Your task to perform on an android device: Go to settings Image 0: 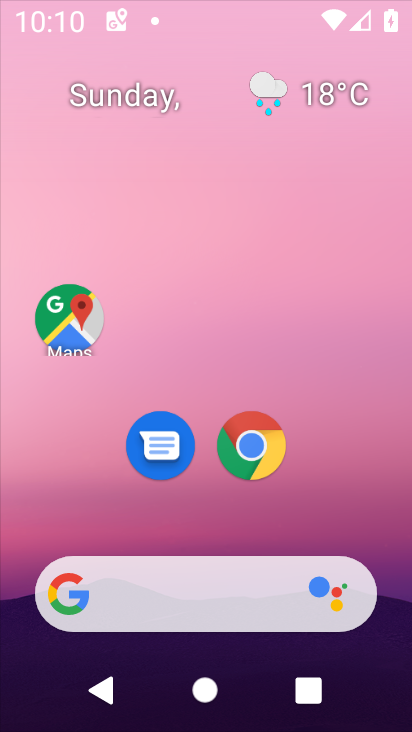
Step 0: press home button
Your task to perform on an android device: Go to settings Image 1: 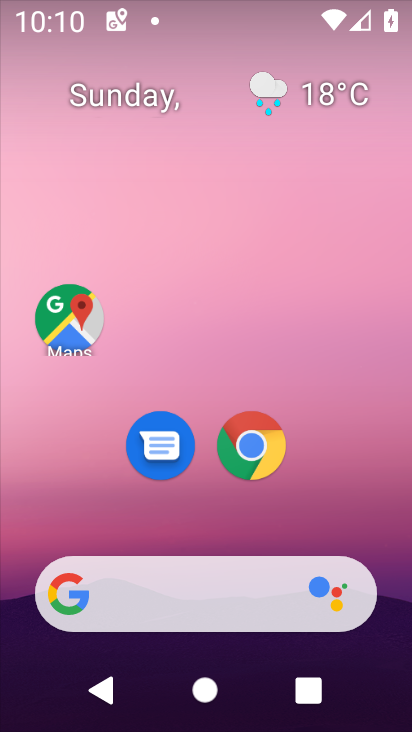
Step 1: drag from (211, 526) to (215, 6)
Your task to perform on an android device: Go to settings Image 2: 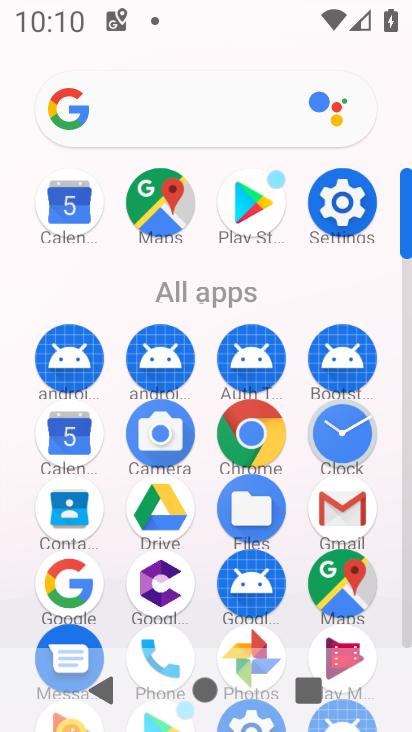
Step 2: click (342, 195)
Your task to perform on an android device: Go to settings Image 3: 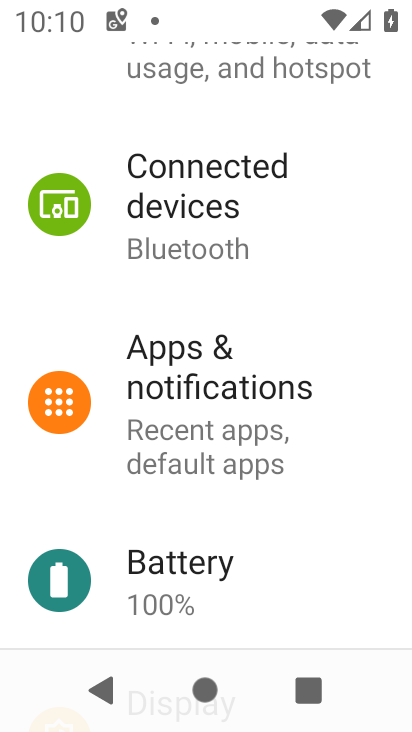
Step 3: task complete